Your task to perform on an android device: turn on notifications settings in the gmail app Image 0: 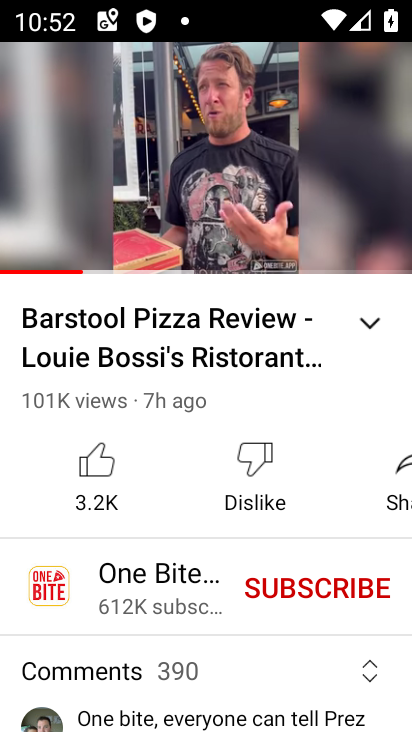
Step 0: press home button
Your task to perform on an android device: turn on notifications settings in the gmail app Image 1: 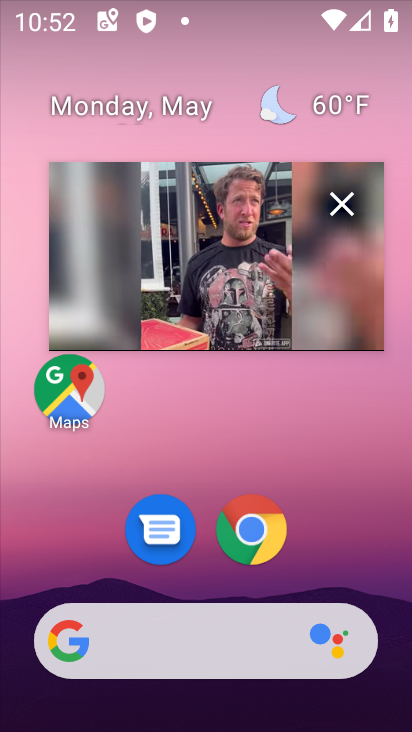
Step 1: click (331, 202)
Your task to perform on an android device: turn on notifications settings in the gmail app Image 2: 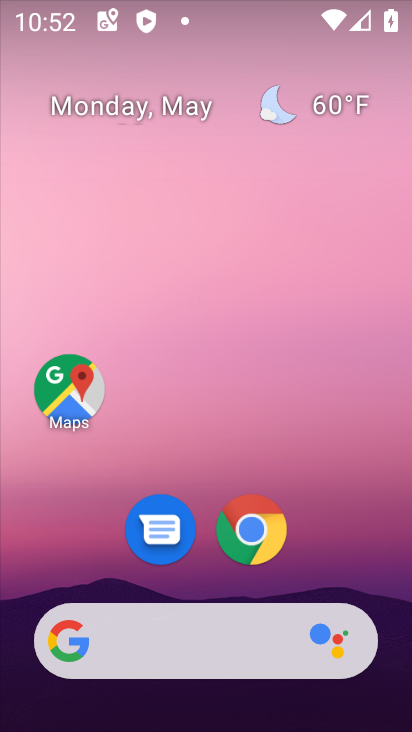
Step 2: drag from (332, 546) to (295, 144)
Your task to perform on an android device: turn on notifications settings in the gmail app Image 3: 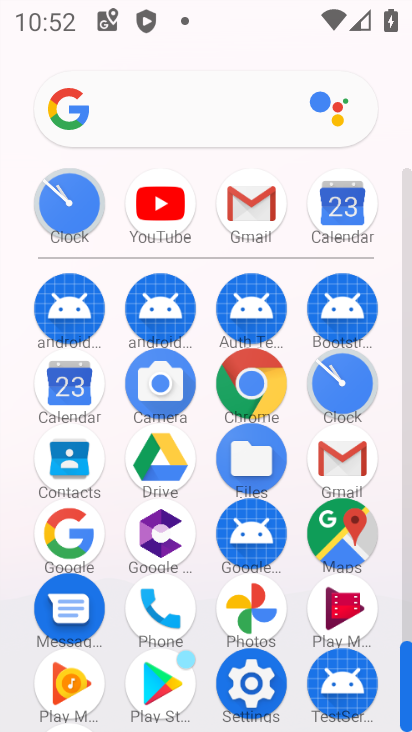
Step 3: click (229, 197)
Your task to perform on an android device: turn on notifications settings in the gmail app Image 4: 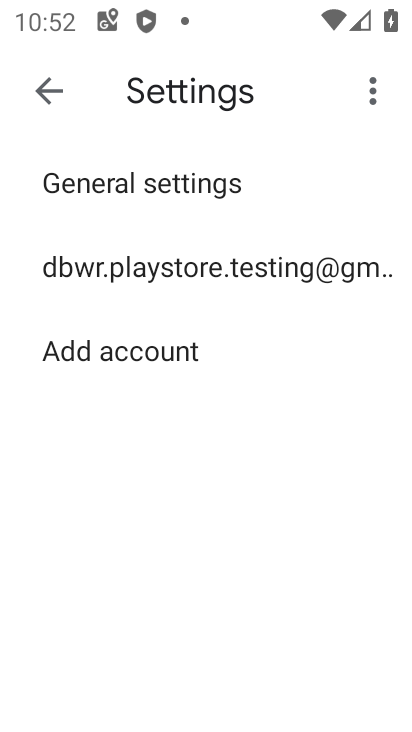
Step 4: click (112, 185)
Your task to perform on an android device: turn on notifications settings in the gmail app Image 5: 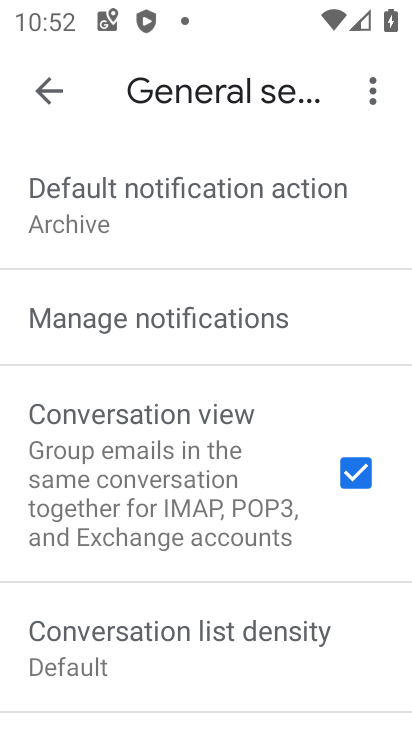
Step 5: click (134, 302)
Your task to perform on an android device: turn on notifications settings in the gmail app Image 6: 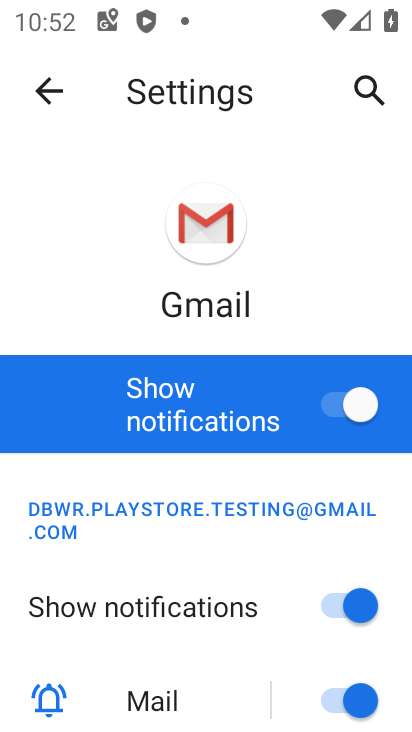
Step 6: task complete